Your task to perform on an android device: open device folders in google photos Image 0: 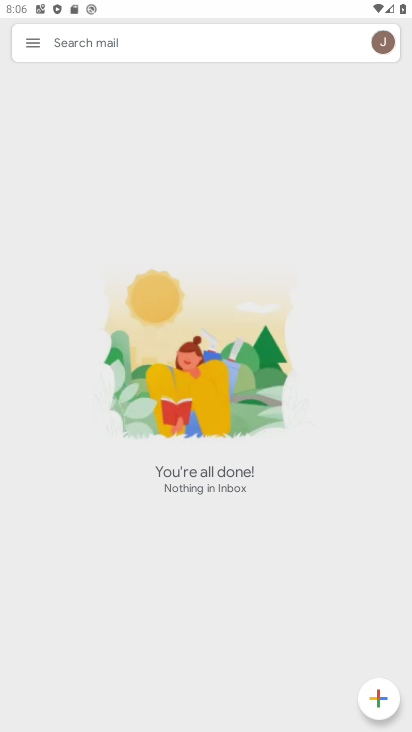
Step 0: task complete